Your task to perform on an android device: Turn on the flashlight Image 0: 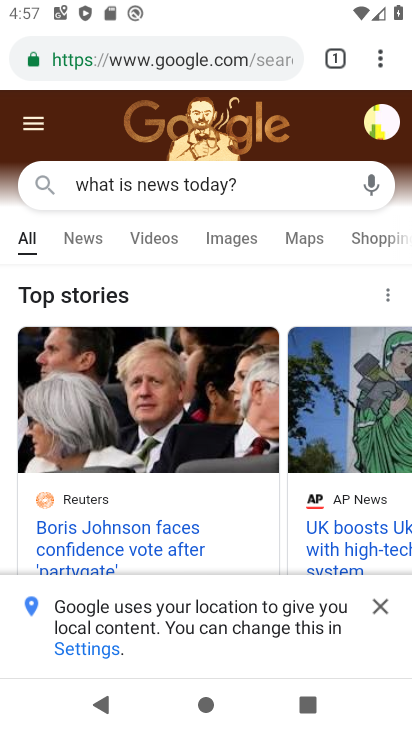
Step 0: drag from (180, 15) to (189, 415)
Your task to perform on an android device: Turn on the flashlight Image 1: 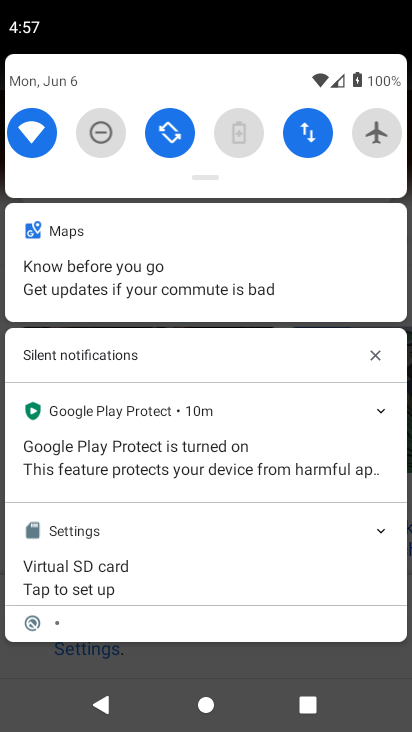
Step 1: drag from (191, 113) to (228, 556)
Your task to perform on an android device: Turn on the flashlight Image 2: 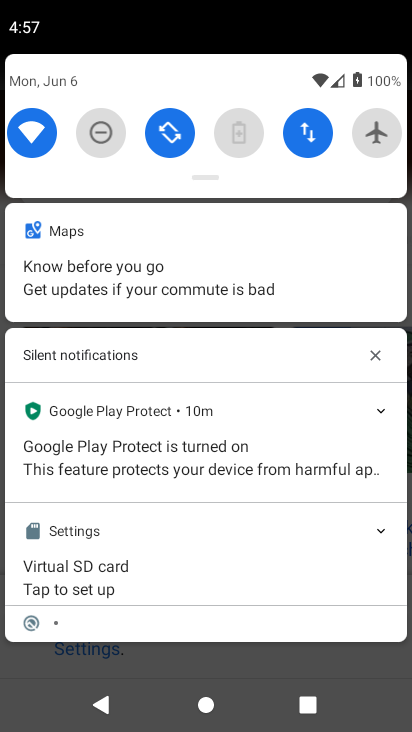
Step 2: drag from (102, 112) to (155, 673)
Your task to perform on an android device: Turn on the flashlight Image 3: 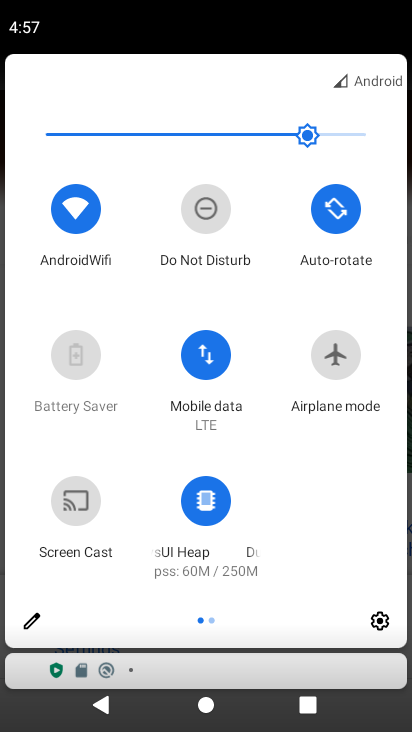
Step 3: click (20, 622)
Your task to perform on an android device: Turn on the flashlight Image 4: 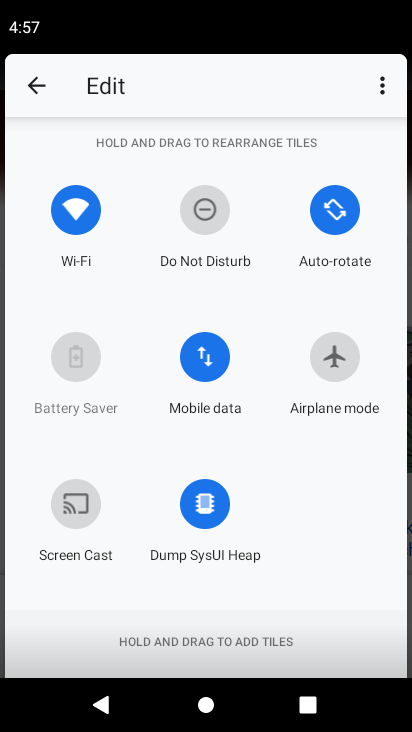
Step 4: task complete